Your task to perform on an android device: What is the news today? Image 0: 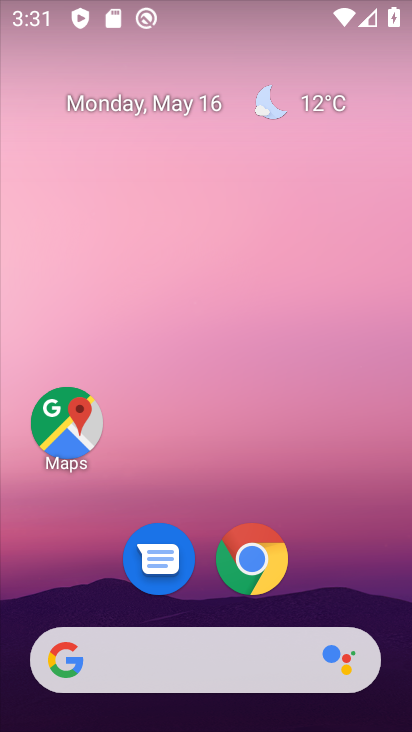
Step 0: drag from (330, 594) to (247, 130)
Your task to perform on an android device: What is the news today? Image 1: 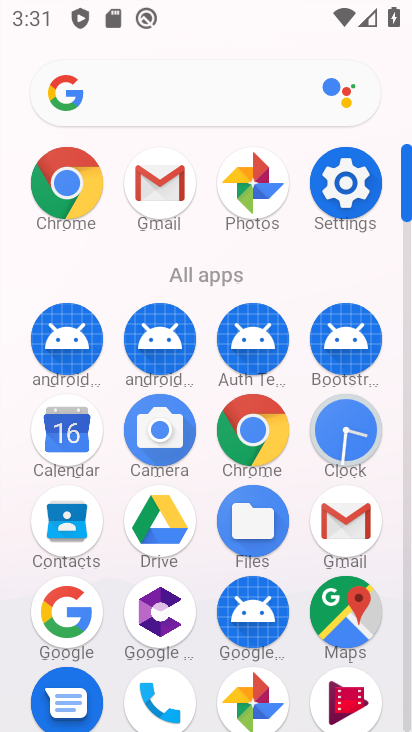
Step 1: click (207, 98)
Your task to perform on an android device: What is the news today? Image 2: 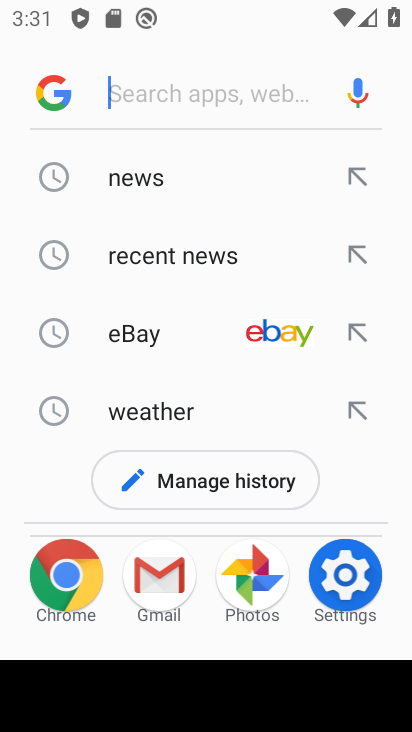
Step 2: click (190, 195)
Your task to perform on an android device: What is the news today? Image 3: 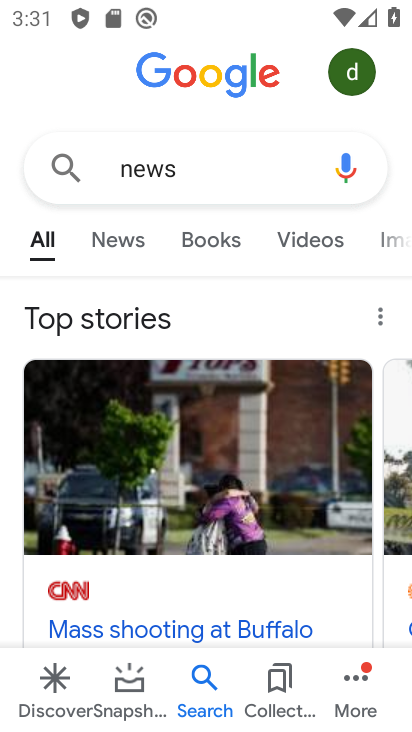
Step 3: task complete